Your task to perform on an android device: Go to Google maps Image 0: 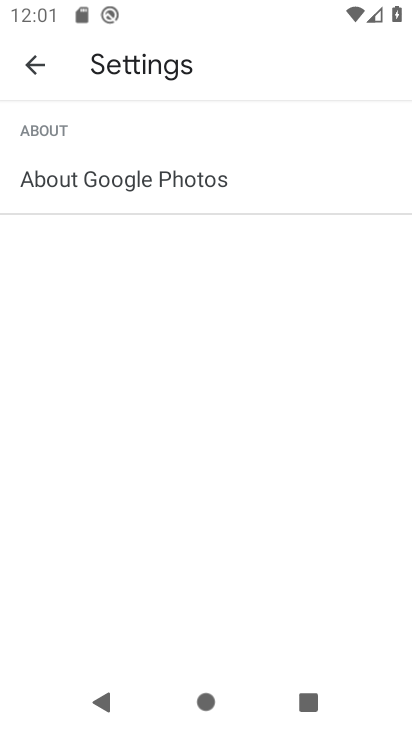
Step 0: press home button
Your task to perform on an android device: Go to Google maps Image 1: 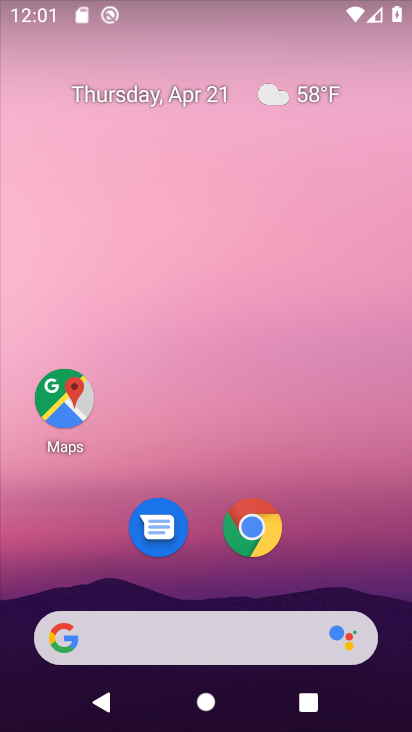
Step 1: click (70, 422)
Your task to perform on an android device: Go to Google maps Image 2: 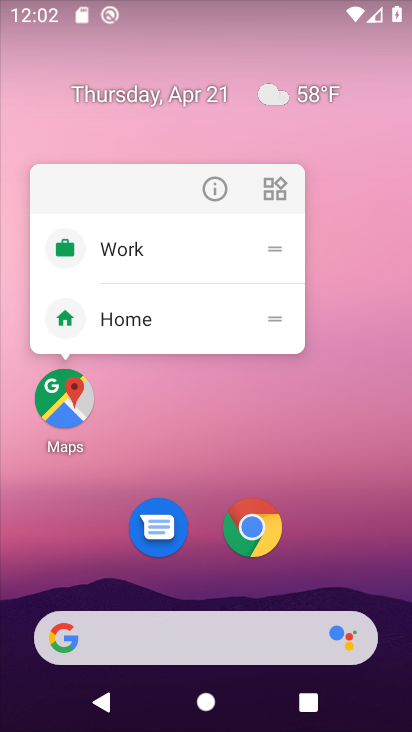
Step 2: click (67, 429)
Your task to perform on an android device: Go to Google maps Image 3: 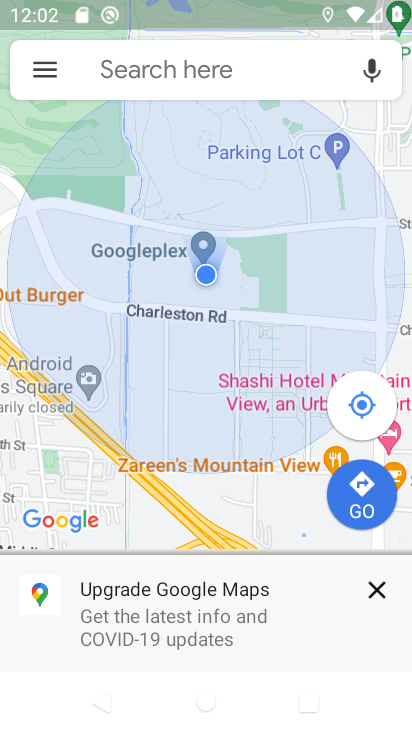
Step 3: task complete